Your task to perform on an android device: empty trash in google photos Image 0: 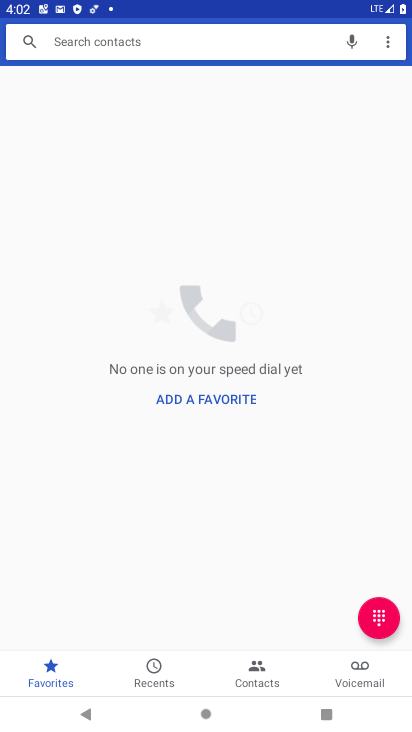
Step 0: press home button
Your task to perform on an android device: empty trash in google photos Image 1: 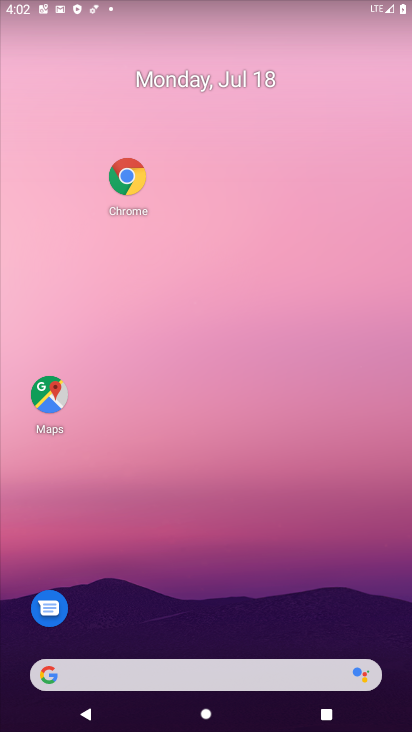
Step 1: drag from (206, 621) to (254, 67)
Your task to perform on an android device: empty trash in google photos Image 2: 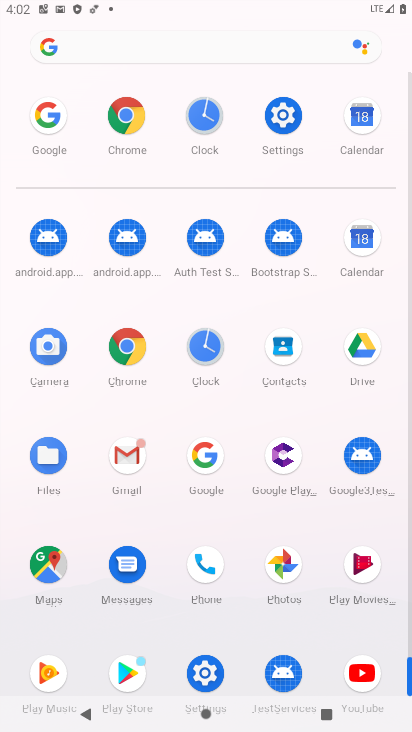
Step 2: click (289, 567)
Your task to perform on an android device: empty trash in google photos Image 3: 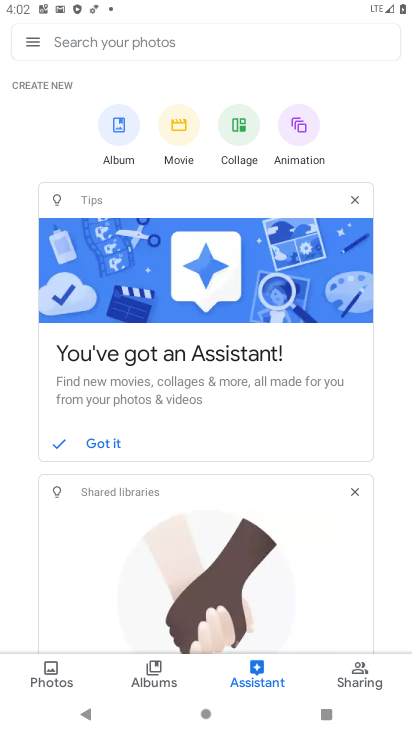
Step 3: click (34, 39)
Your task to perform on an android device: empty trash in google photos Image 4: 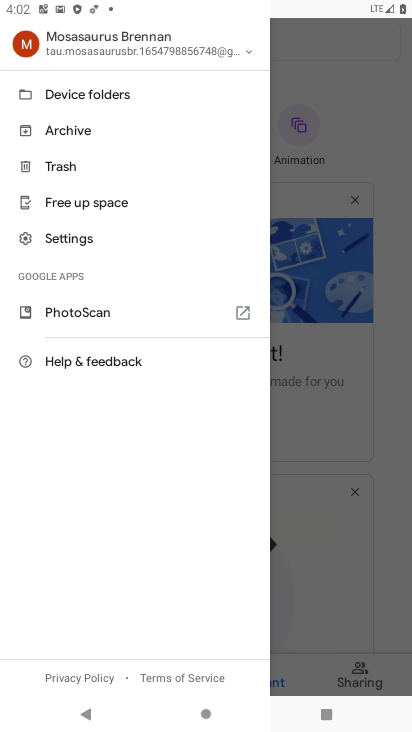
Step 4: click (60, 159)
Your task to perform on an android device: empty trash in google photos Image 5: 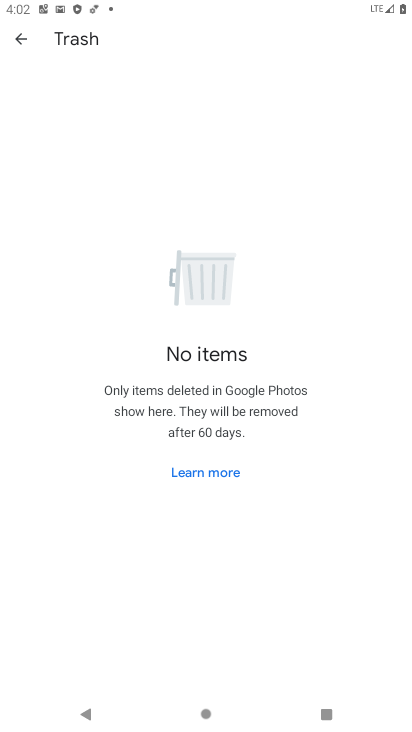
Step 5: task complete